Your task to perform on an android device: Open Yahoo.com Image 0: 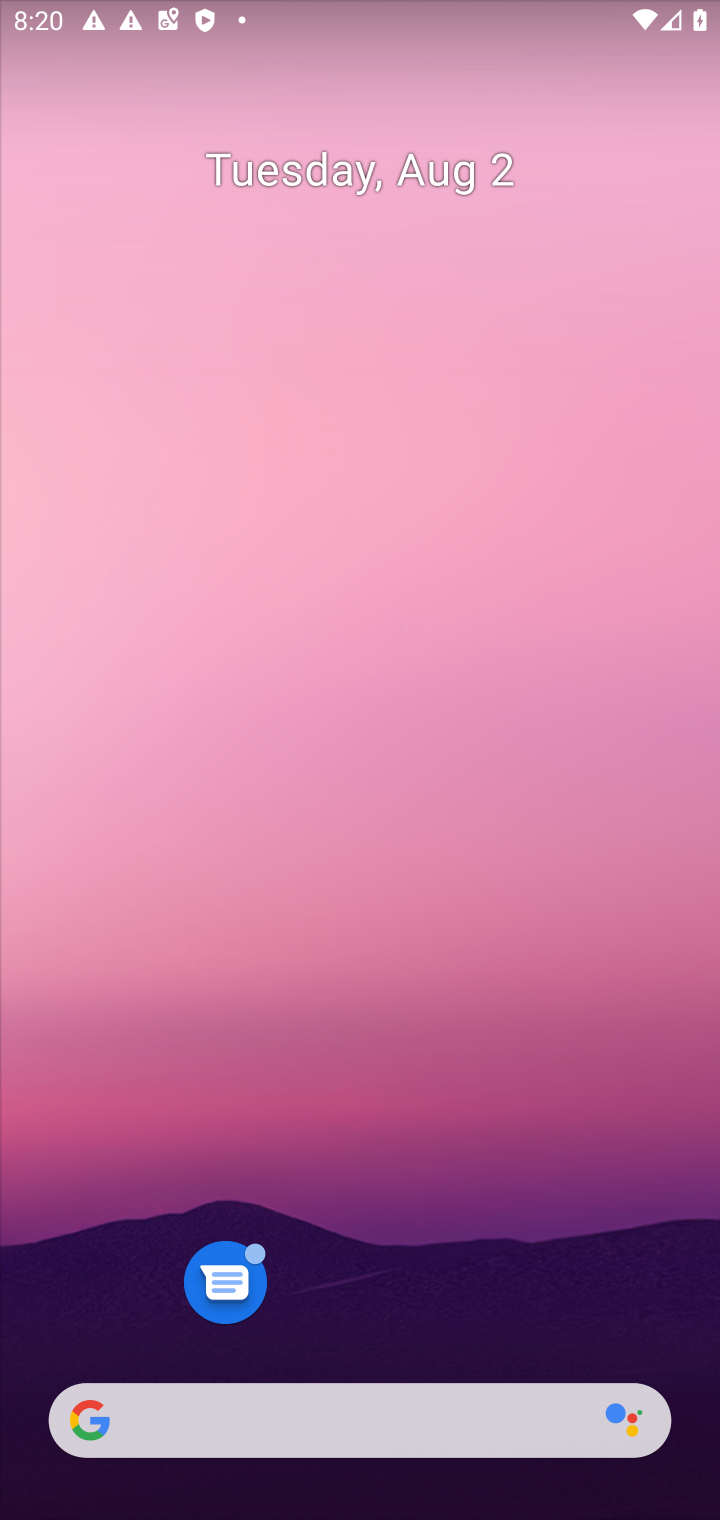
Step 0: drag from (385, 1360) to (366, 153)
Your task to perform on an android device: Open Yahoo.com Image 1: 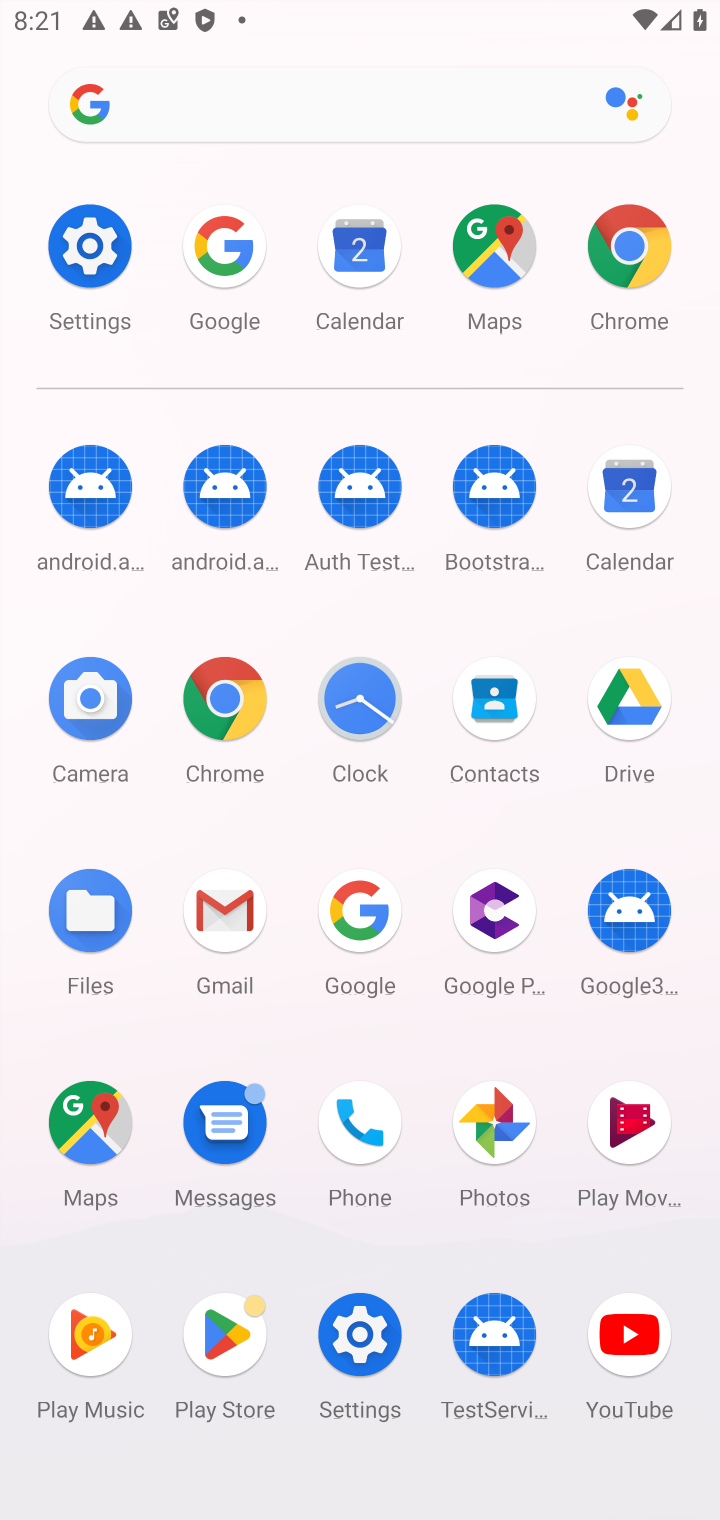
Step 1: click (232, 719)
Your task to perform on an android device: Open Yahoo.com Image 2: 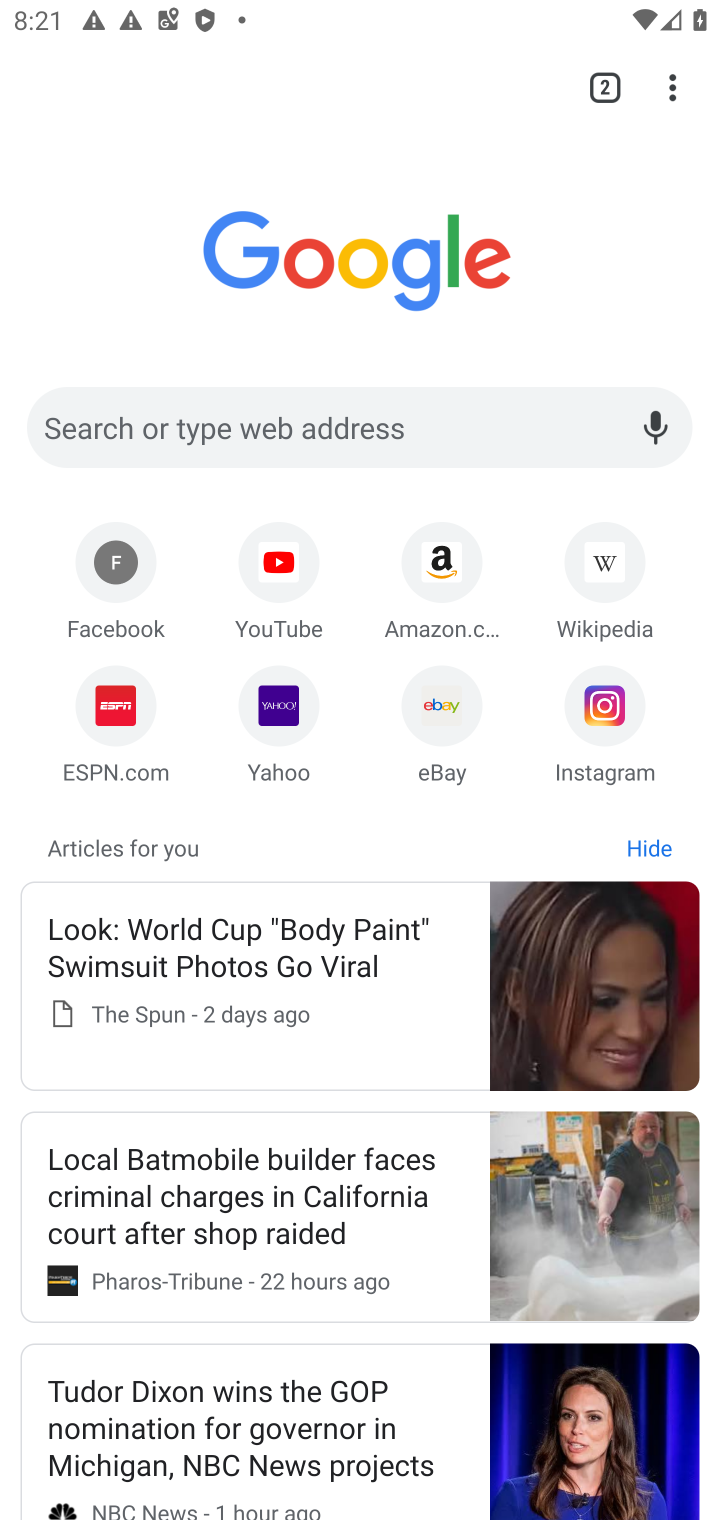
Step 2: click (296, 710)
Your task to perform on an android device: Open Yahoo.com Image 3: 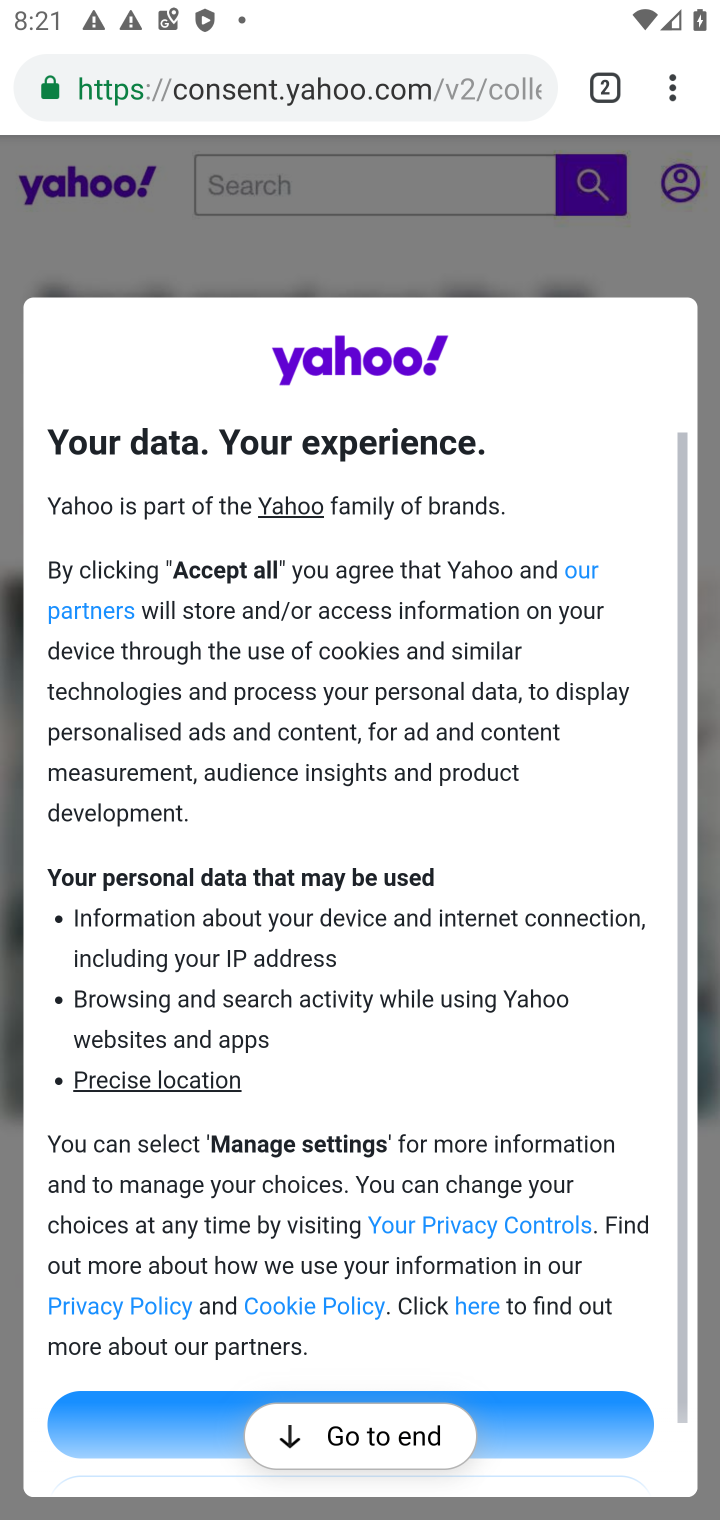
Step 3: task complete